Your task to perform on an android device: check out phone information Image 0: 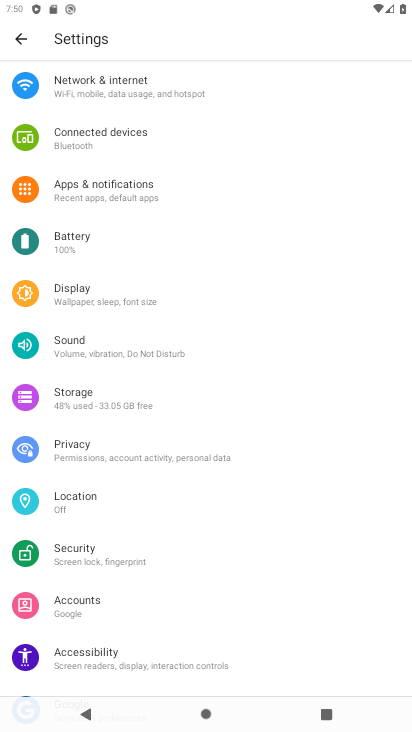
Step 0: press home button
Your task to perform on an android device: check out phone information Image 1: 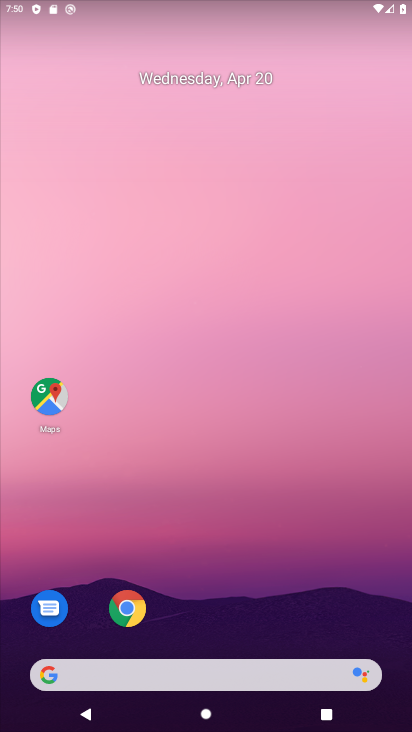
Step 1: drag from (214, 587) to (241, 83)
Your task to perform on an android device: check out phone information Image 2: 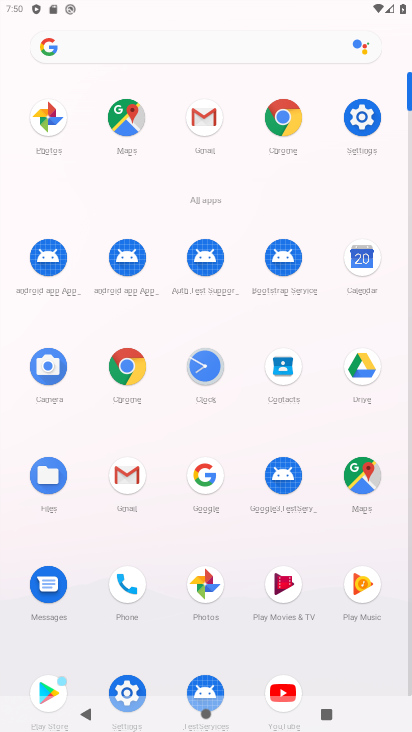
Step 2: click (137, 583)
Your task to perform on an android device: check out phone information Image 3: 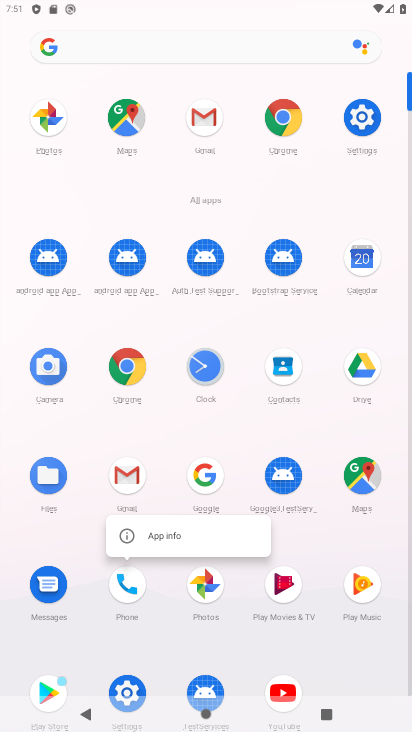
Step 3: click (127, 589)
Your task to perform on an android device: check out phone information Image 4: 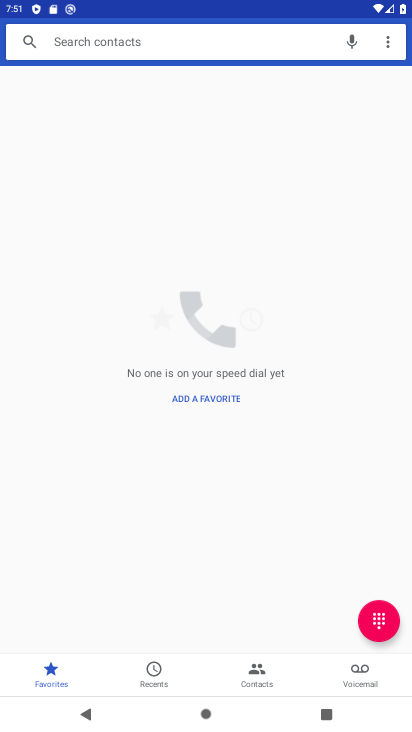
Step 4: click (387, 51)
Your task to perform on an android device: check out phone information Image 5: 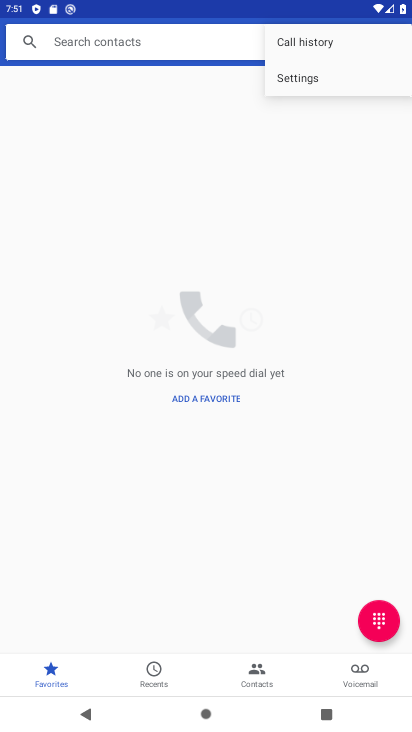
Step 5: click (306, 70)
Your task to perform on an android device: check out phone information Image 6: 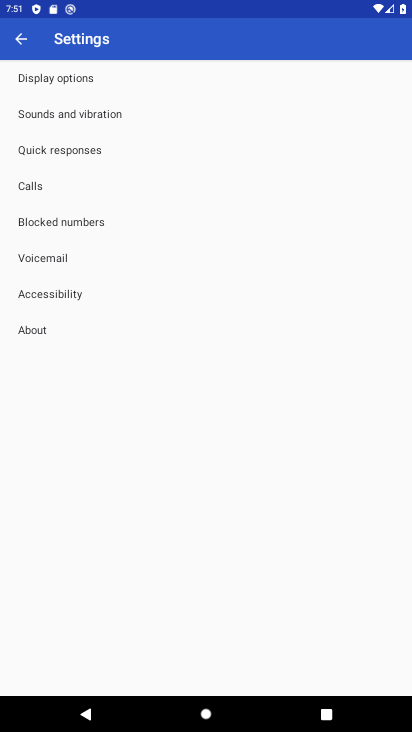
Step 6: click (26, 330)
Your task to perform on an android device: check out phone information Image 7: 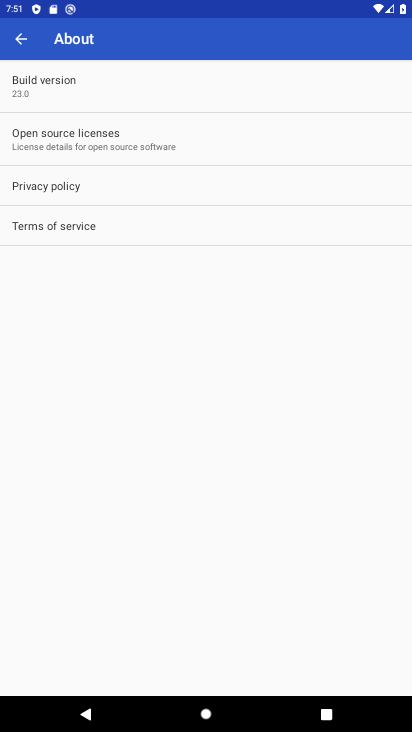
Step 7: task complete